Your task to perform on an android device: Go to Google Image 0: 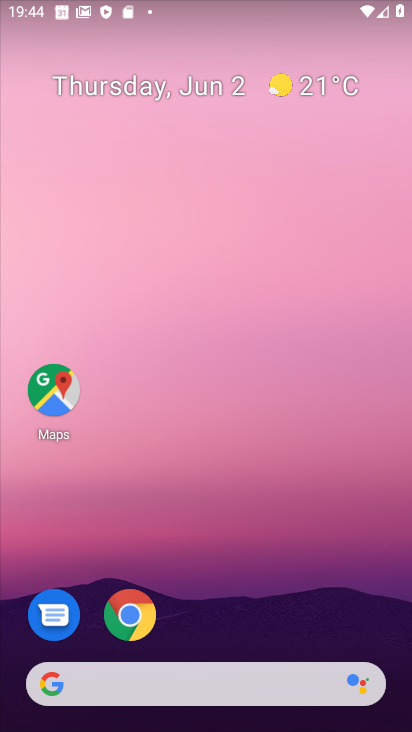
Step 0: click (205, 674)
Your task to perform on an android device: Go to Google Image 1: 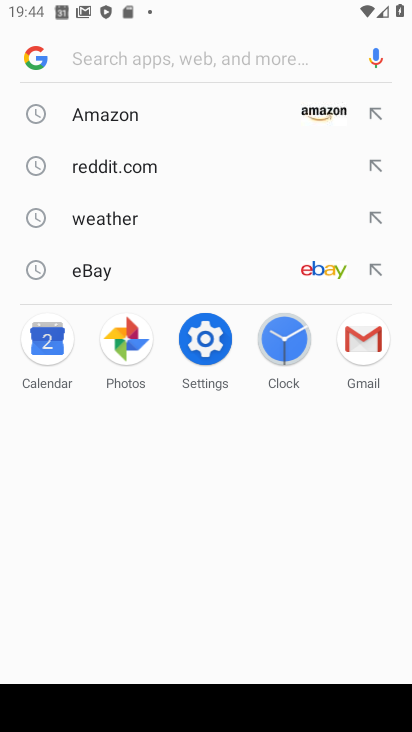
Step 1: type "google.com"
Your task to perform on an android device: Go to Google Image 2: 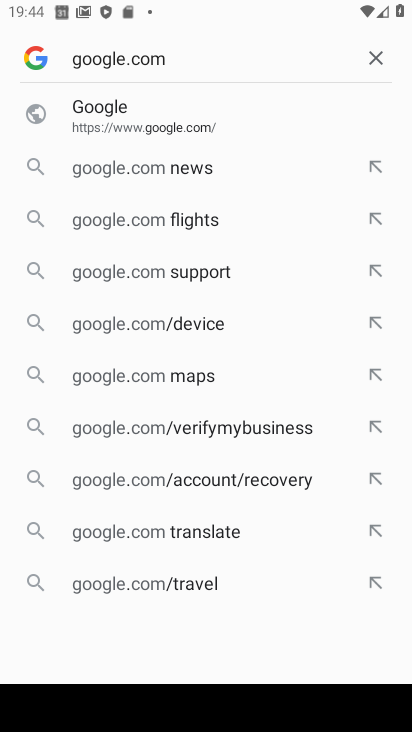
Step 2: click (240, 110)
Your task to perform on an android device: Go to Google Image 3: 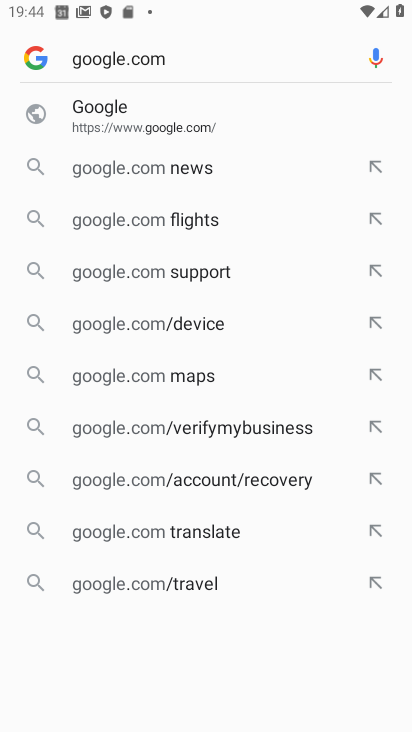
Step 3: task complete